Your task to perform on an android device: Open Google Image 0: 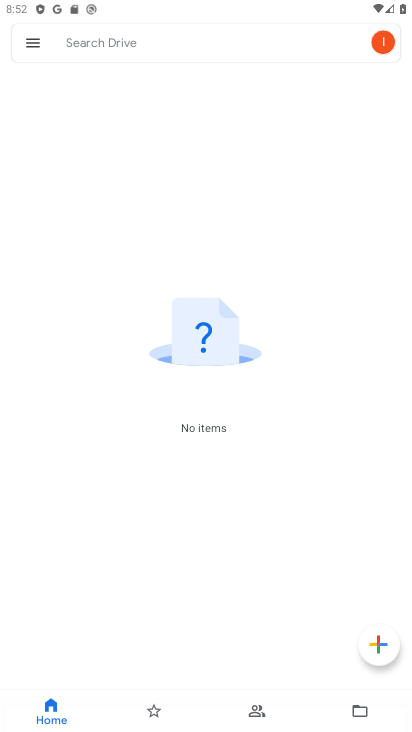
Step 0: press home button
Your task to perform on an android device: Open Google Image 1: 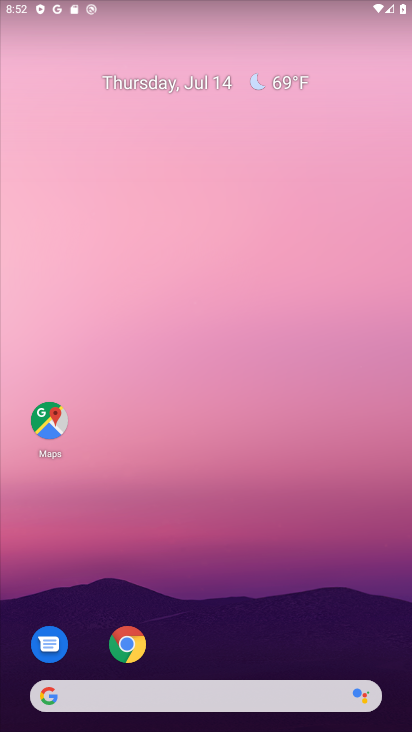
Step 1: click (210, 700)
Your task to perform on an android device: Open Google Image 2: 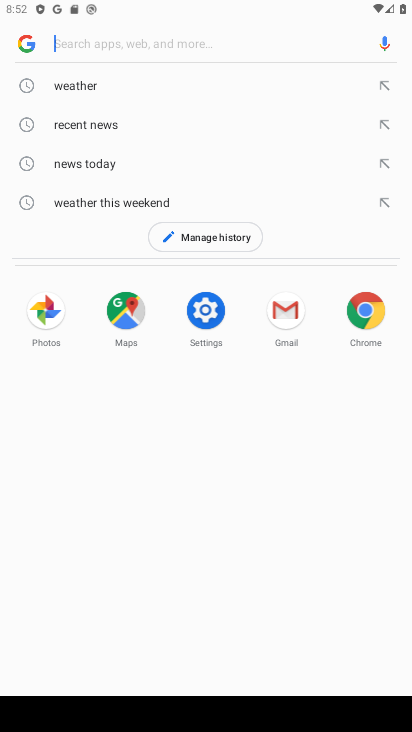
Step 2: task complete